Your task to perform on an android device: Is it going to rain this weekend? Image 0: 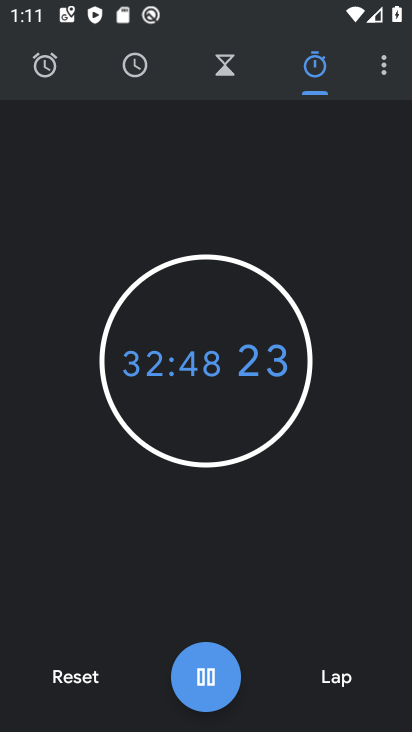
Step 0: press home button
Your task to perform on an android device: Is it going to rain this weekend? Image 1: 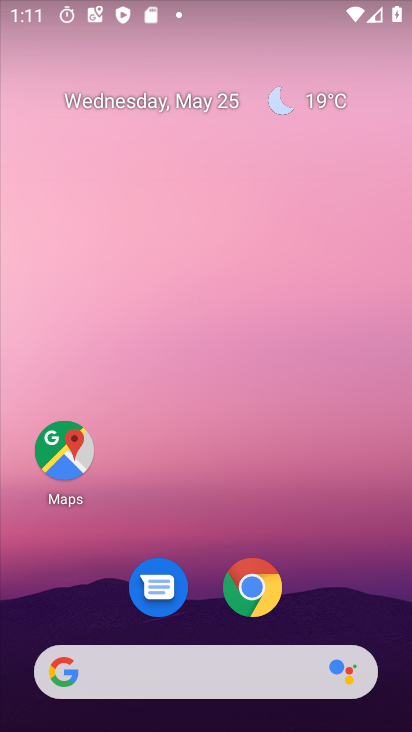
Step 1: click (278, 104)
Your task to perform on an android device: Is it going to rain this weekend? Image 2: 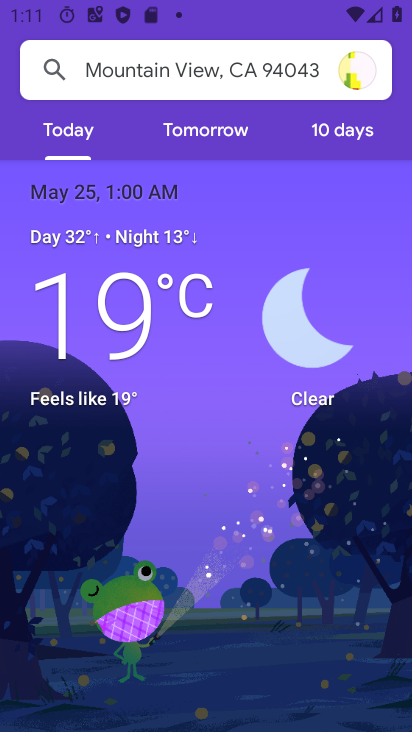
Step 2: click (348, 130)
Your task to perform on an android device: Is it going to rain this weekend? Image 3: 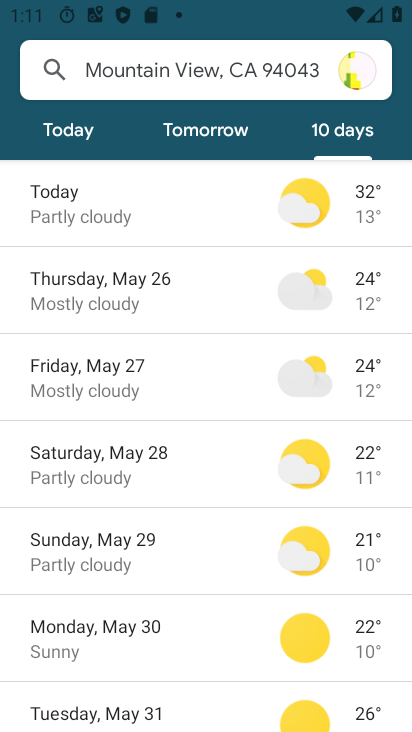
Step 3: click (101, 459)
Your task to perform on an android device: Is it going to rain this weekend? Image 4: 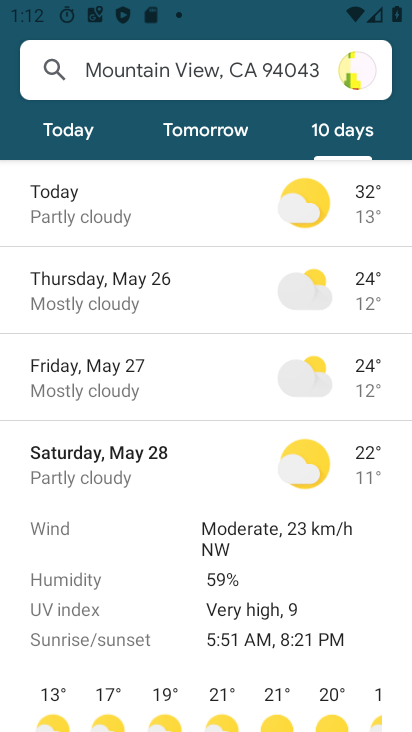
Step 4: task complete